Your task to perform on an android device: change the clock style Image 0: 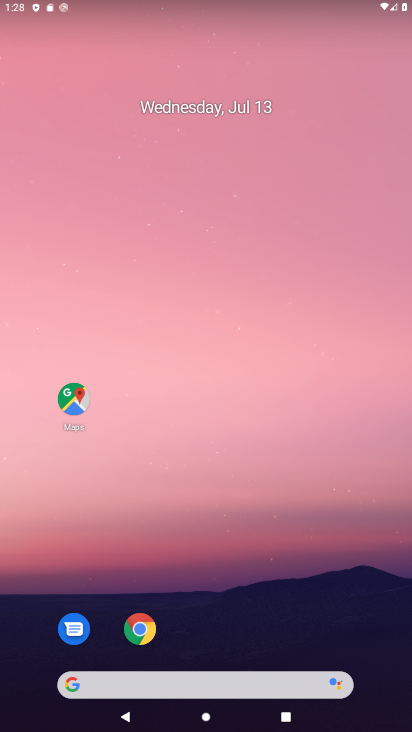
Step 0: drag from (280, 648) to (284, 71)
Your task to perform on an android device: change the clock style Image 1: 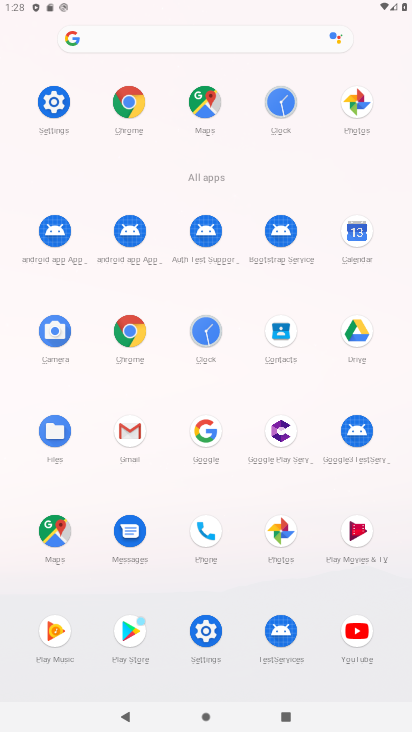
Step 1: click (266, 111)
Your task to perform on an android device: change the clock style Image 2: 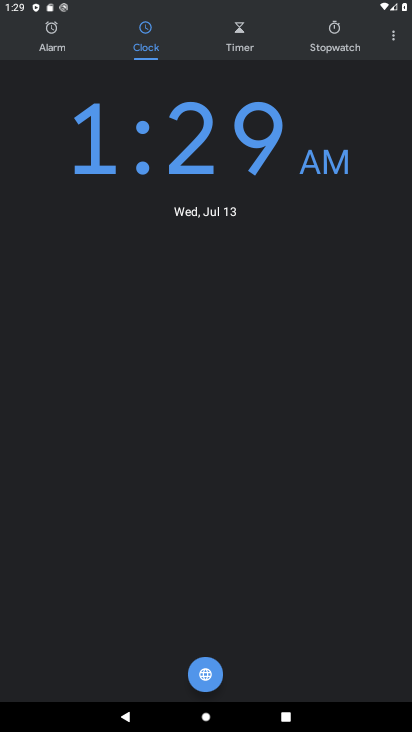
Step 2: click (394, 40)
Your task to perform on an android device: change the clock style Image 3: 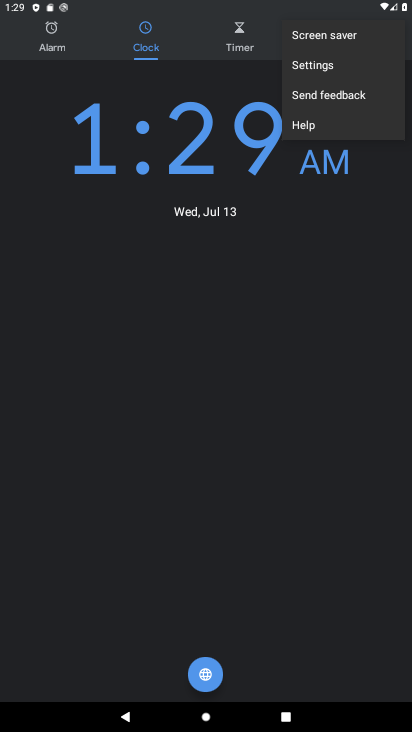
Step 3: click (317, 57)
Your task to perform on an android device: change the clock style Image 4: 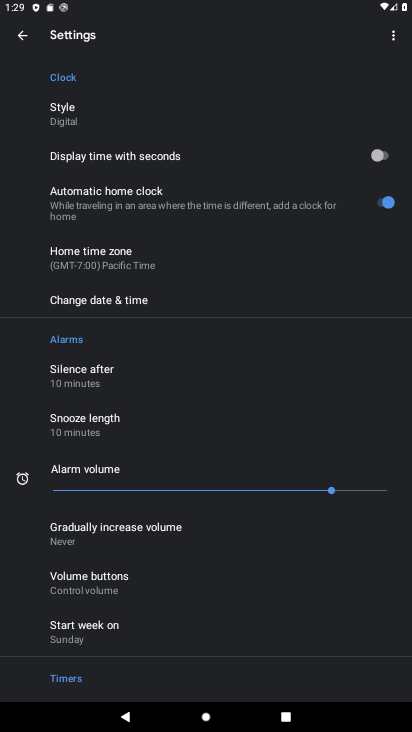
Step 4: click (81, 114)
Your task to perform on an android device: change the clock style Image 5: 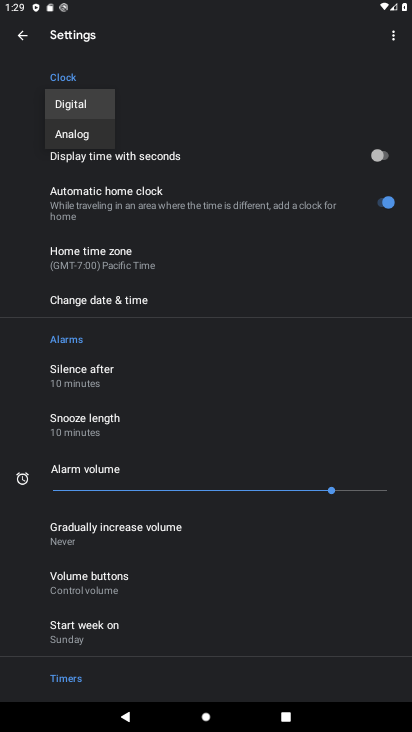
Step 5: click (81, 132)
Your task to perform on an android device: change the clock style Image 6: 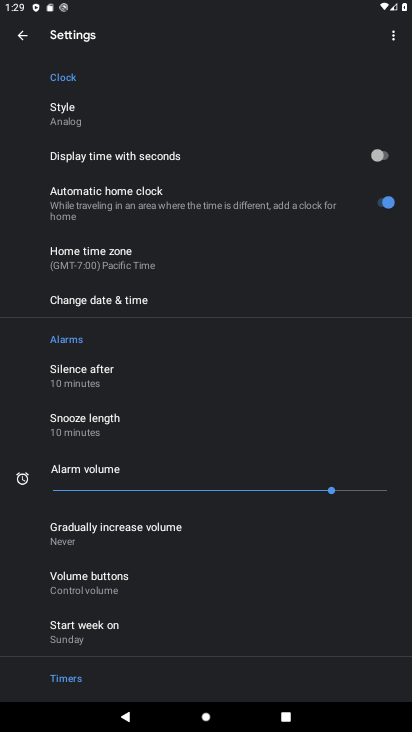
Step 6: task complete